Your task to perform on an android device: Open Chrome and go to settings Image 0: 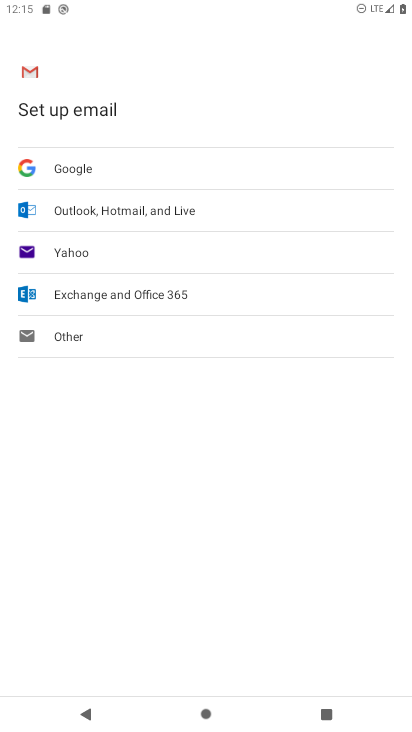
Step 0: press home button
Your task to perform on an android device: Open Chrome and go to settings Image 1: 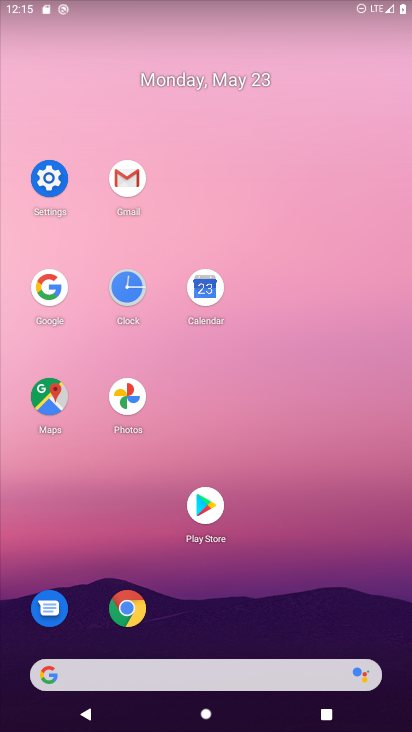
Step 1: click (132, 595)
Your task to perform on an android device: Open Chrome and go to settings Image 2: 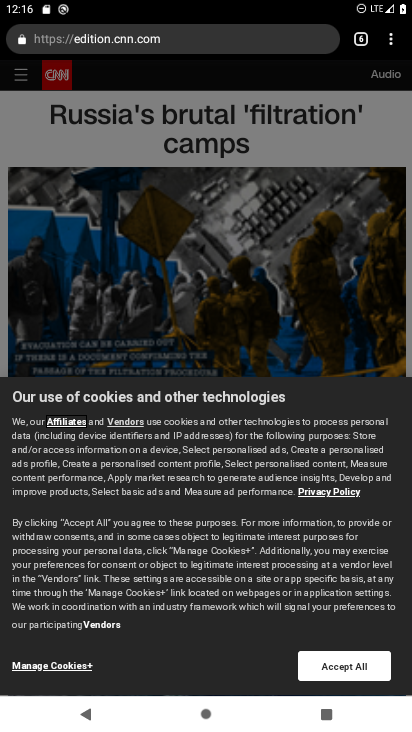
Step 2: click (392, 41)
Your task to perform on an android device: Open Chrome and go to settings Image 3: 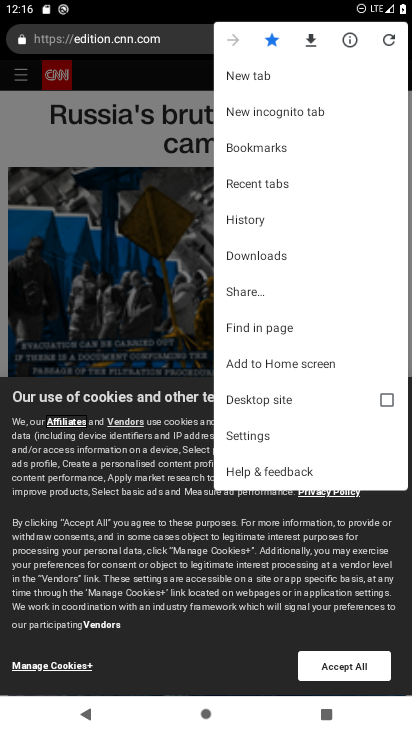
Step 3: click (304, 441)
Your task to perform on an android device: Open Chrome and go to settings Image 4: 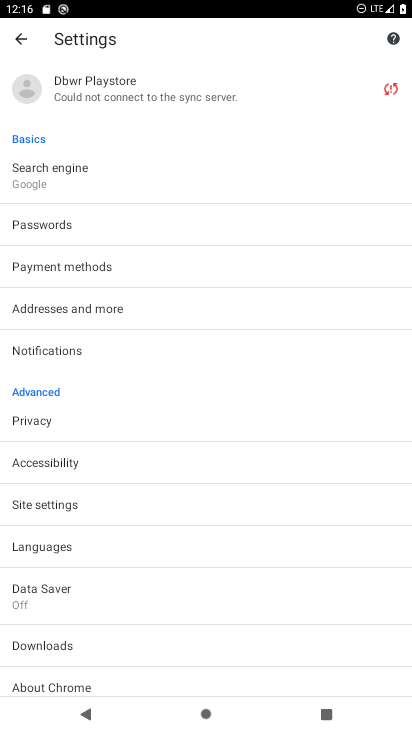
Step 4: task complete